Your task to perform on an android device: Add razer blackwidow to the cart on costco Image 0: 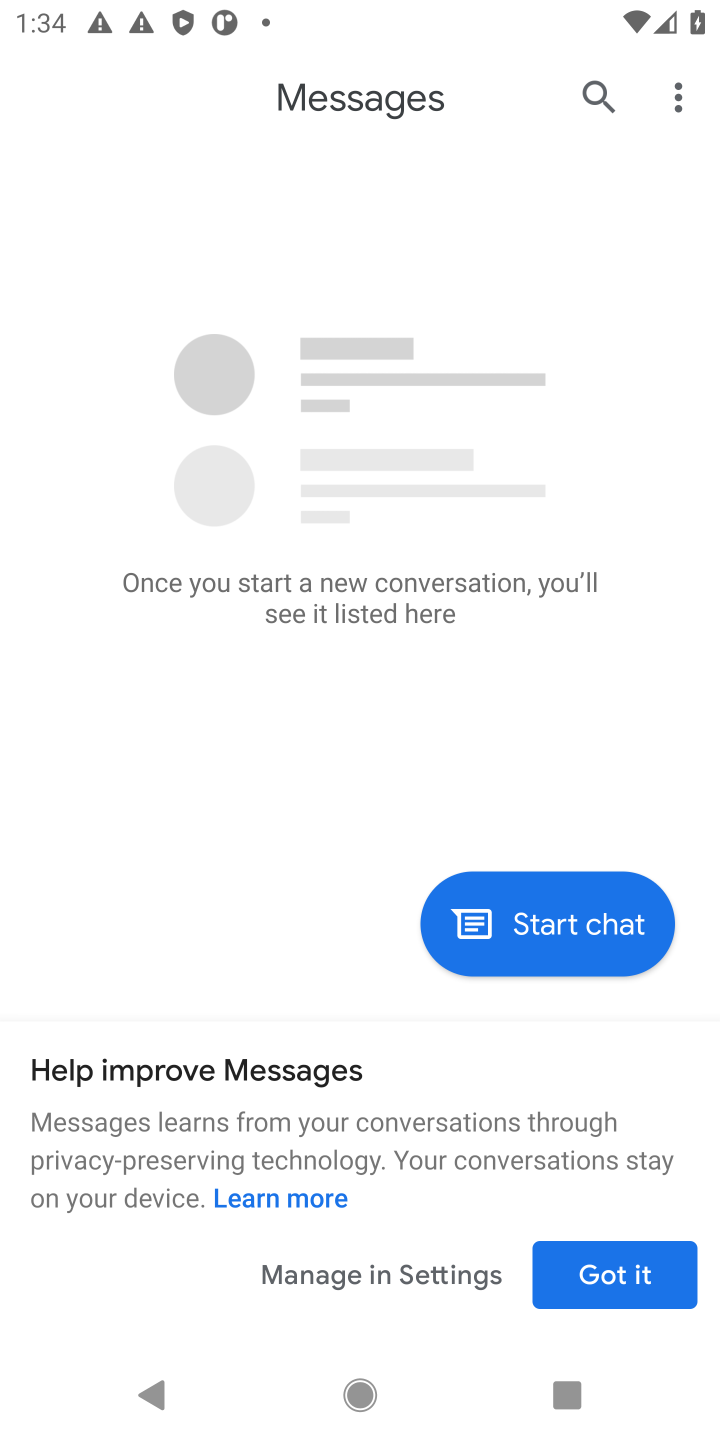
Step 0: press home button
Your task to perform on an android device: Add razer blackwidow to the cart on costco Image 1: 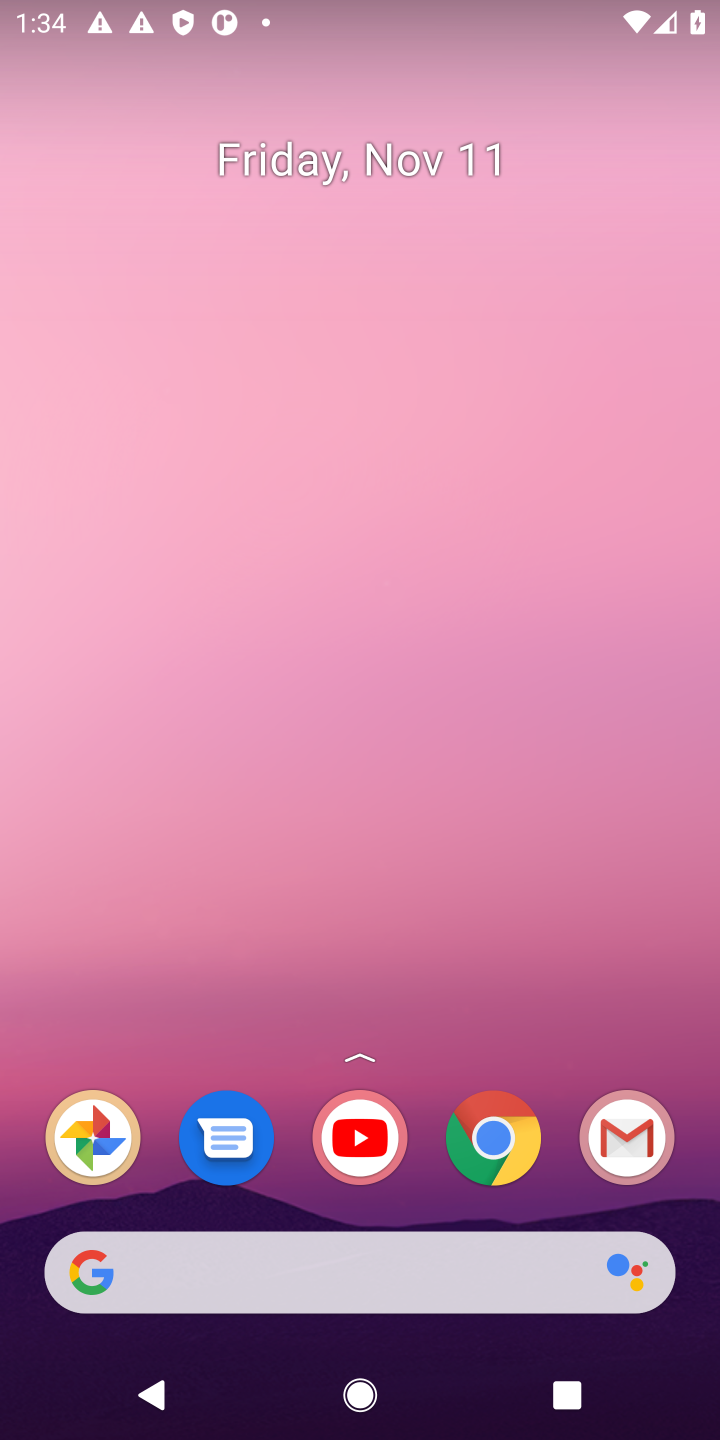
Step 1: click (288, 1287)
Your task to perform on an android device: Add razer blackwidow to the cart on costco Image 2: 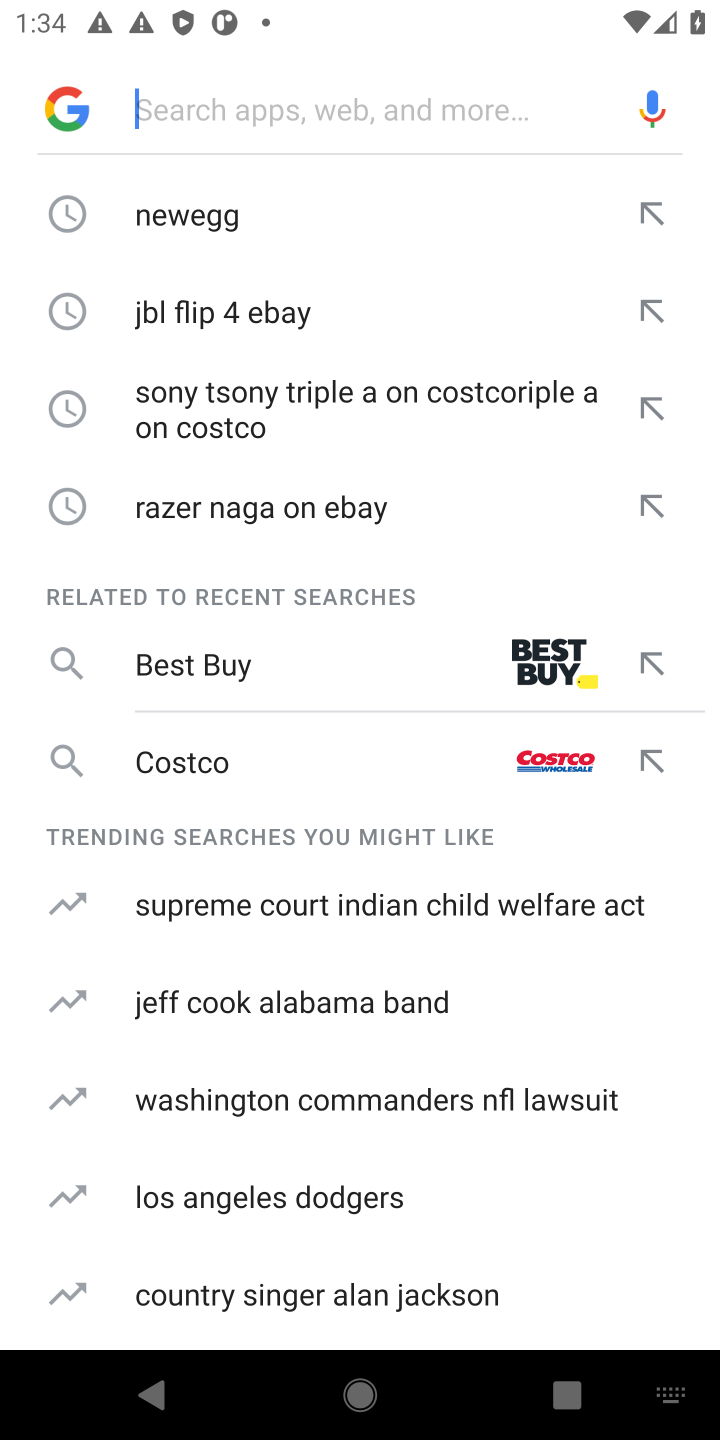
Step 2: type "razer blackwidow  on costco"
Your task to perform on an android device: Add razer blackwidow to the cart on costco Image 3: 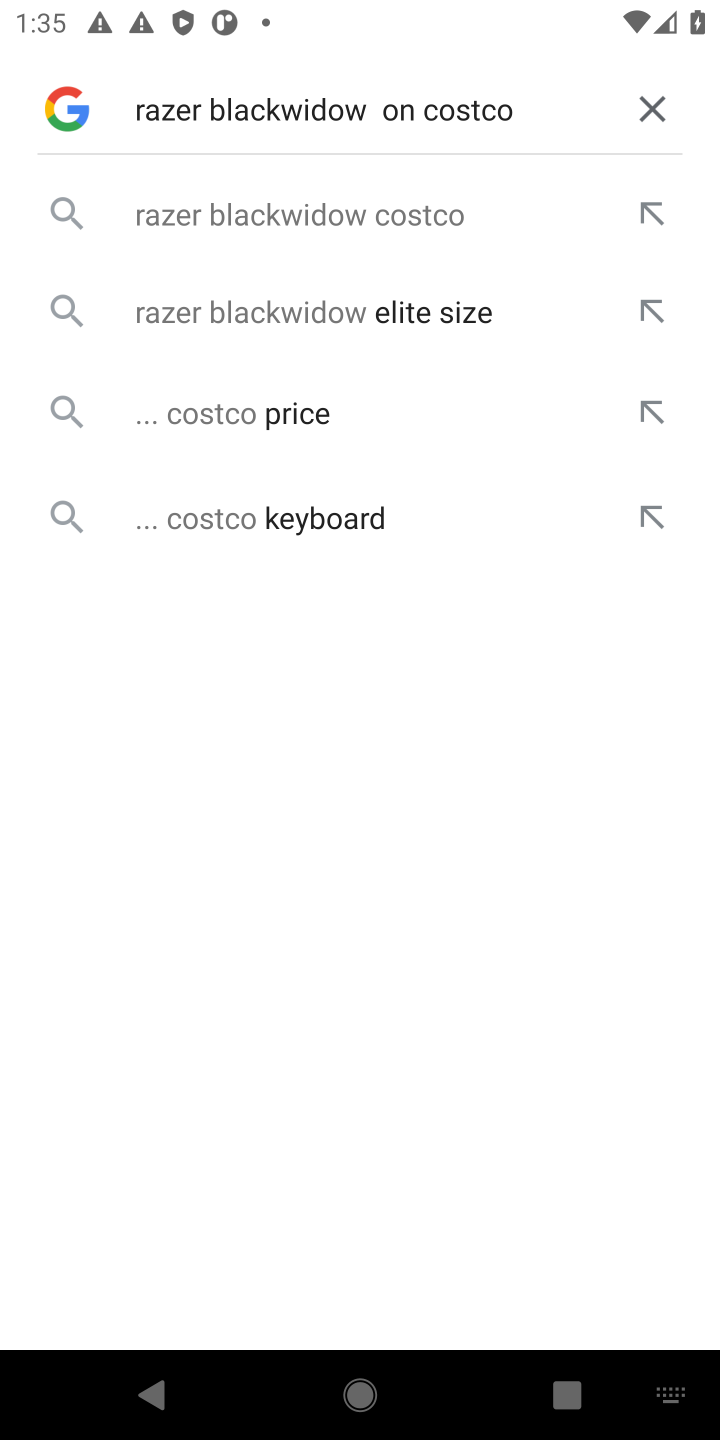
Step 3: click (377, 215)
Your task to perform on an android device: Add razer blackwidow to the cart on costco Image 4: 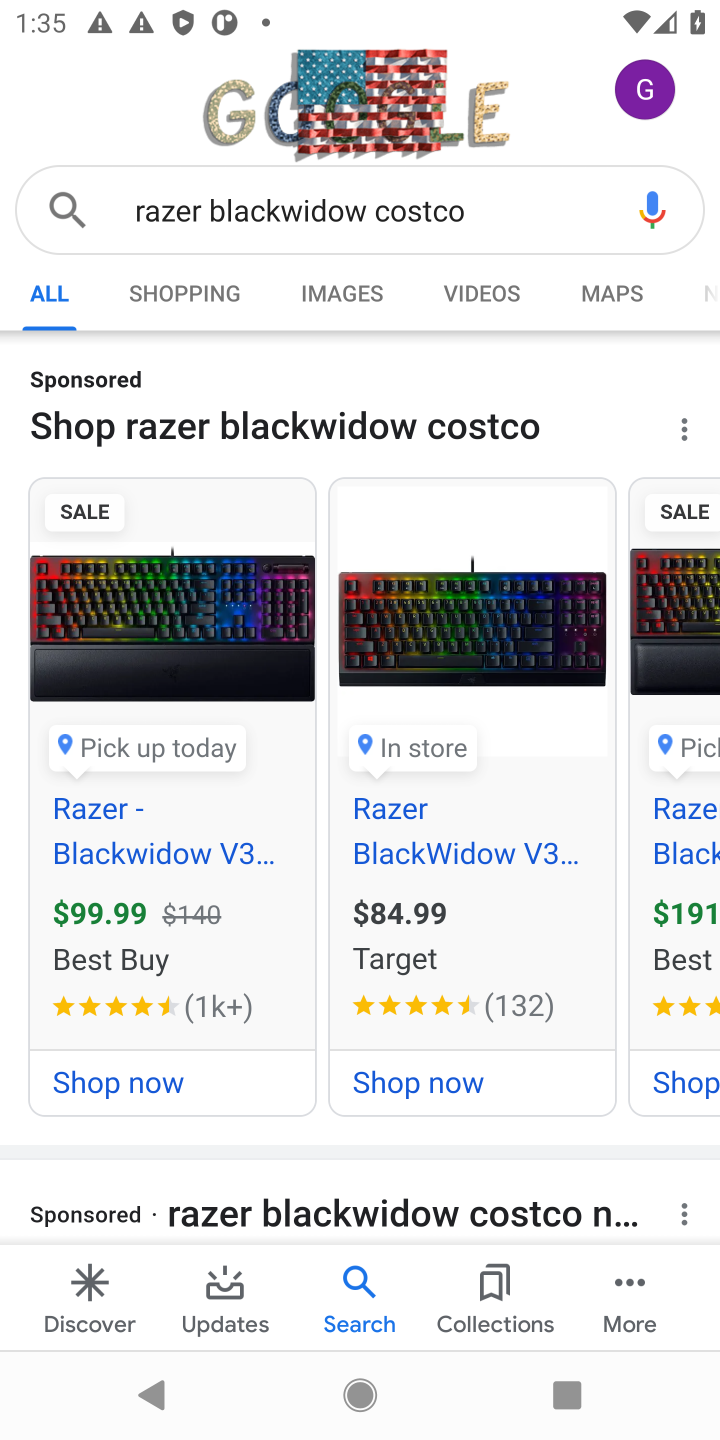
Step 4: drag from (288, 1132) to (368, 378)
Your task to perform on an android device: Add razer blackwidow to the cart on costco Image 5: 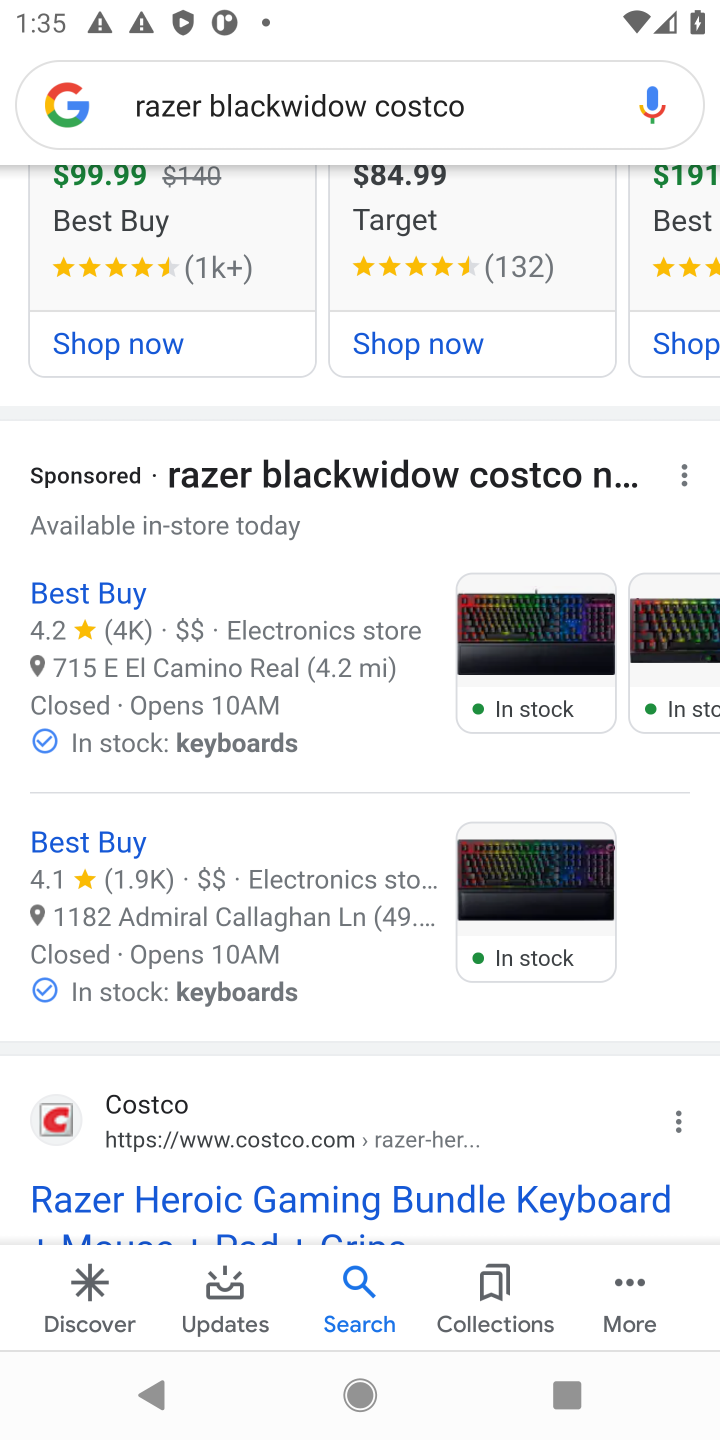
Step 5: drag from (395, 1142) to (380, 799)
Your task to perform on an android device: Add razer blackwidow to the cart on costco Image 6: 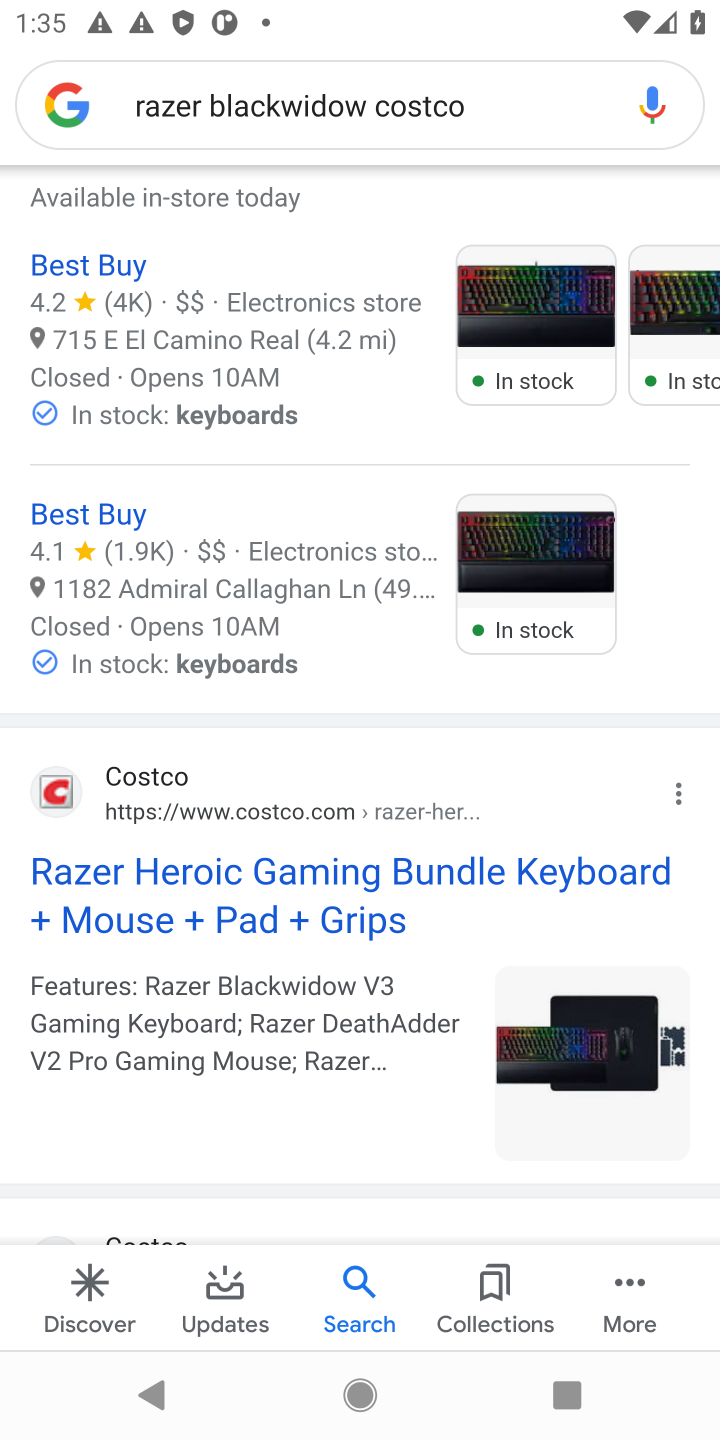
Step 6: drag from (297, 965) to (347, 402)
Your task to perform on an android device: Add razer blackwidow to the cart on costco Image 7: 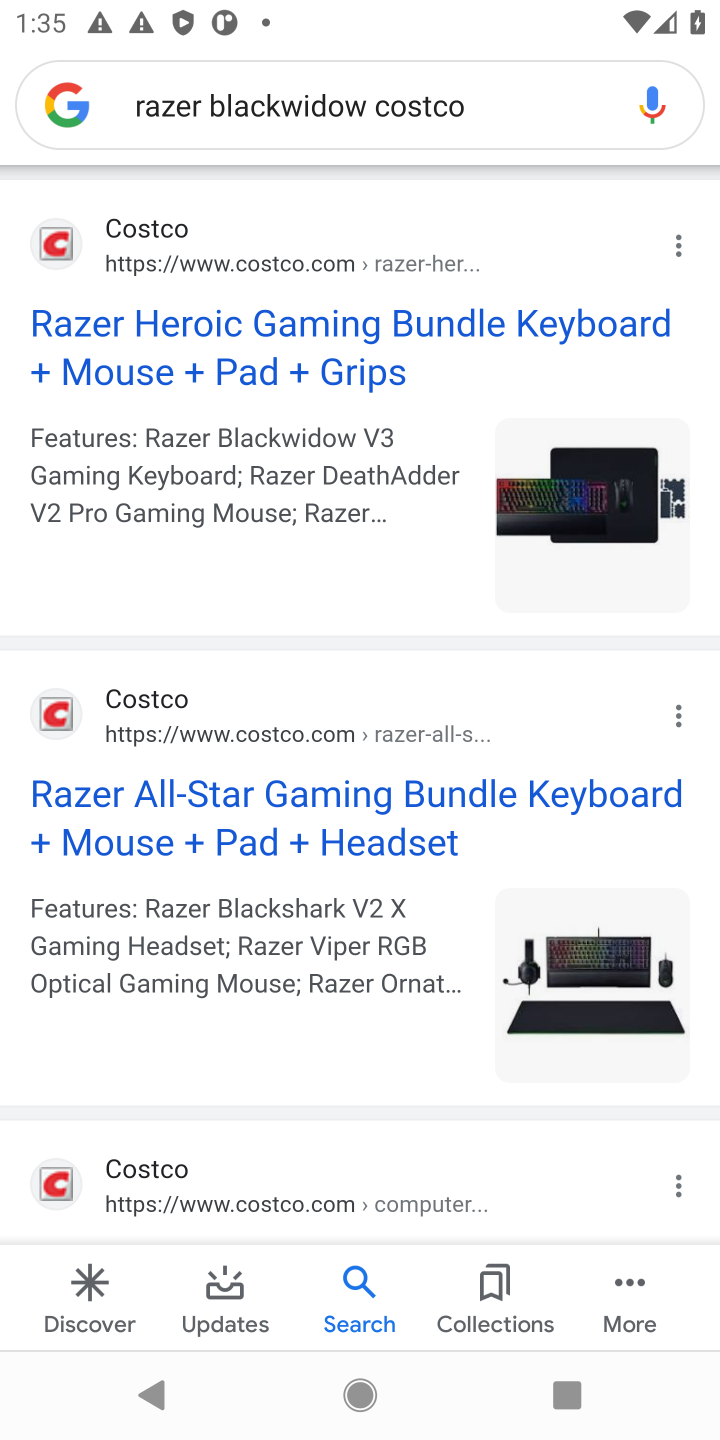
Step 7: click (123, 335)
Your task to perform on an android device: Add razer blackwidow to the cart on costco Image 8: 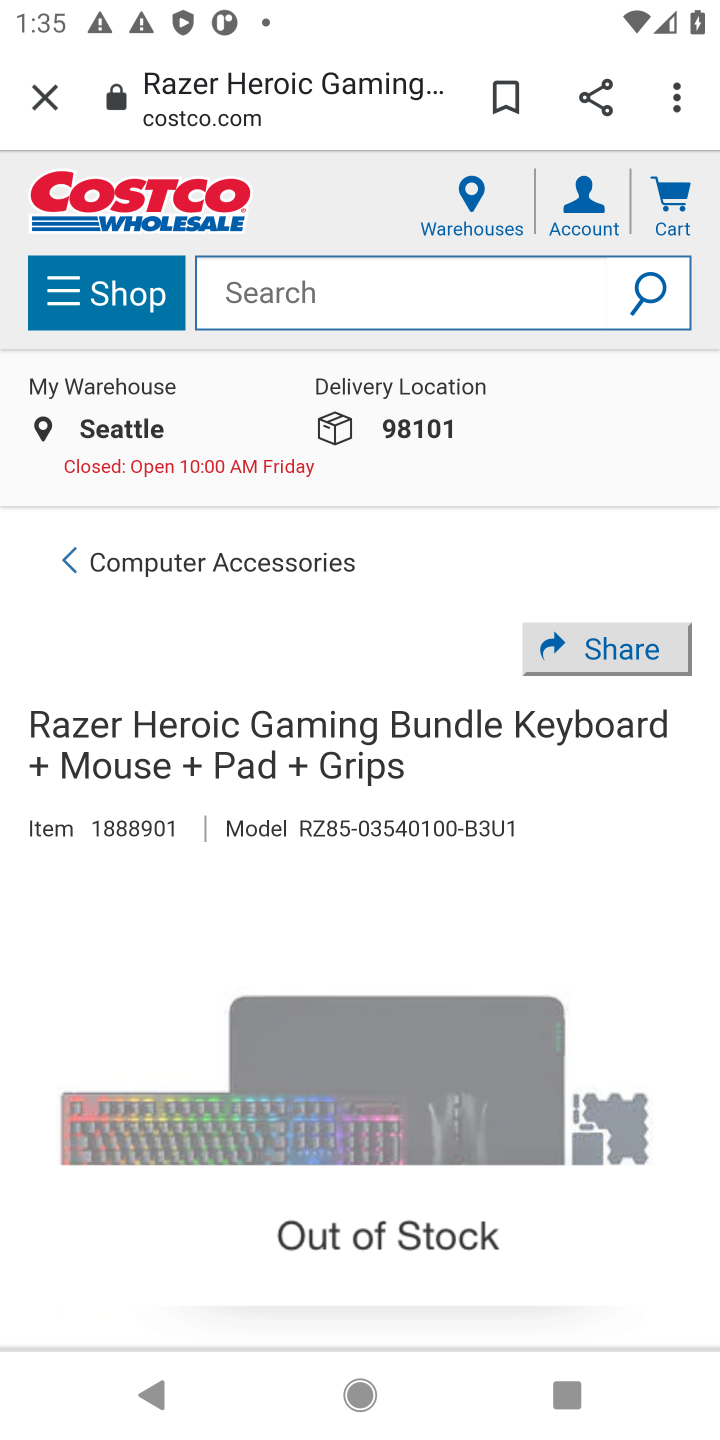
Step 8: task complete